Your task to perform on an android device: toggle show notifications on the lock screen Image 0: 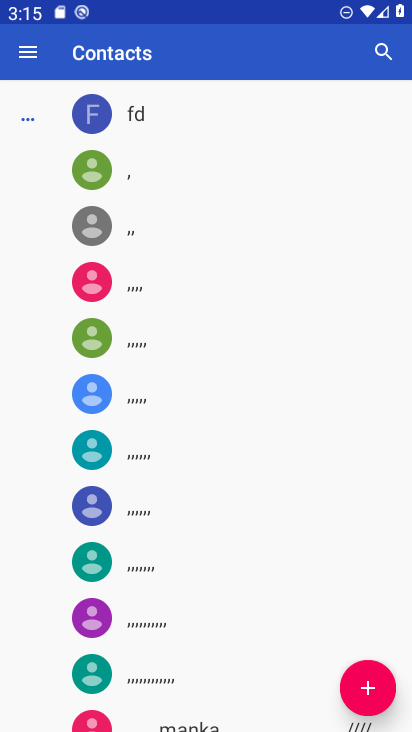
Step 0: press home button
Your task to perform on an android device: toggle show notifications on the lock screen Image 1: 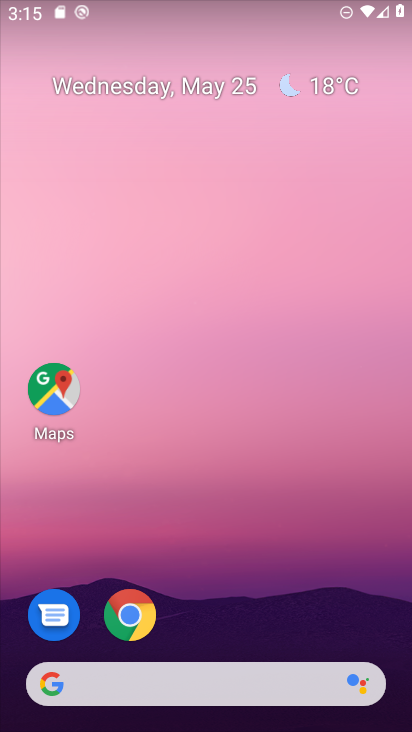
Step 1: drag from (271, 555) to (273, 11)
Your task to perform on an android device: toggle show notifications on the lock screen Image 2: 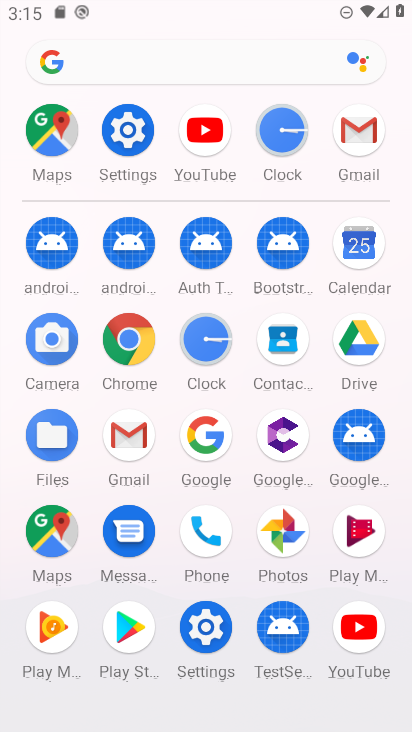
Step 2: click (123, 124)
Your task to perform on an android device: toggle show notifications on the lock screen Image 3: 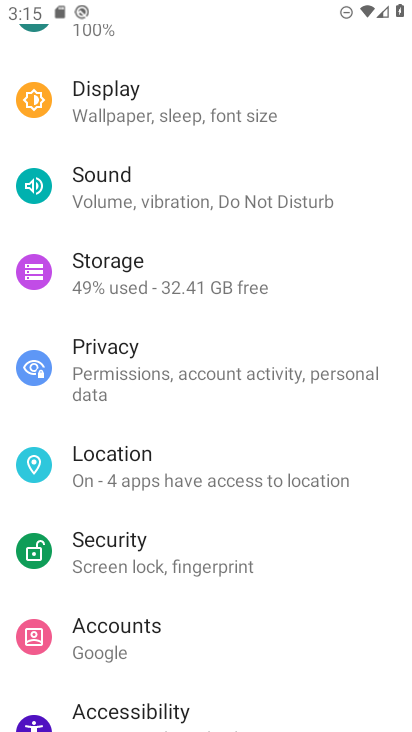
Step 3: drag from (198, 205) to (189, 663)
Your task to perform on an android device: toggle show notifications on the lock screen Image 4: 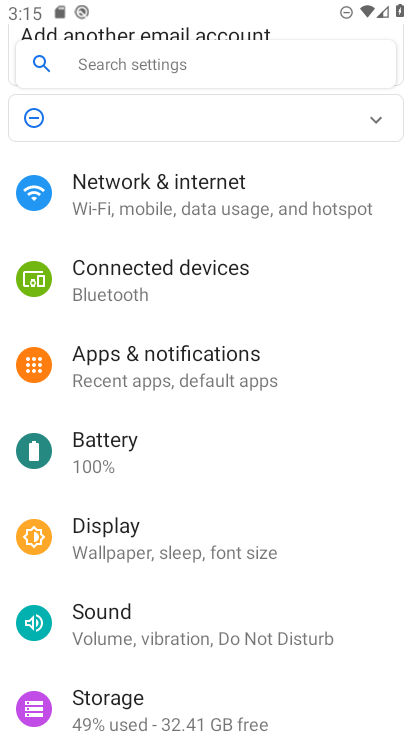
Step 4: click (232, 374)
Your task to perform on an android device: toggle show notifications on the lock screen Image 5: 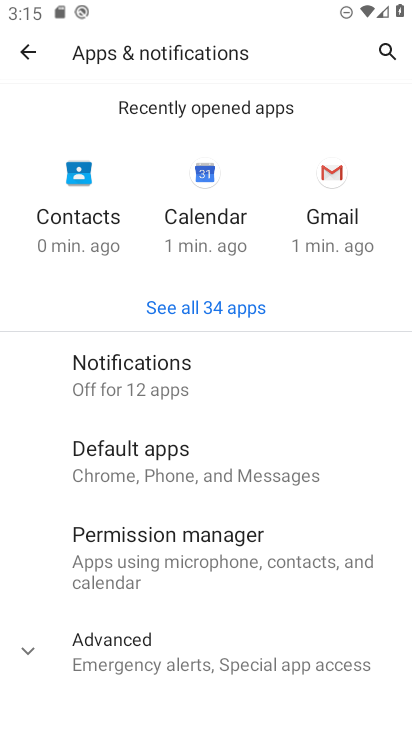
Step 5: click (232, 373)
Your task to perform on an android device: toggle show notifications on the lock screen Image 6: 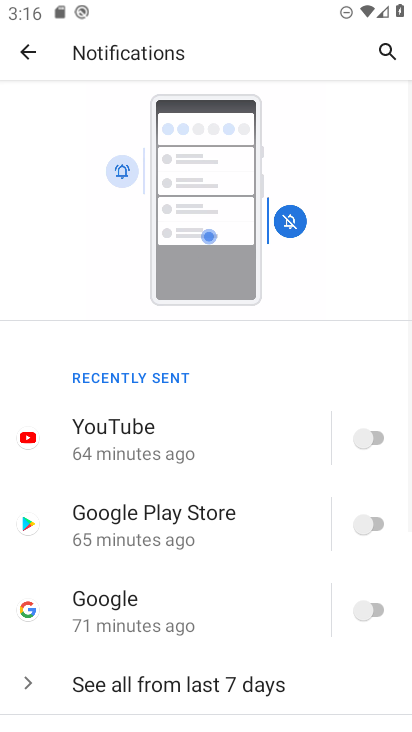
Step 6: task complete